Your task to perform on an android device: turn off javascript in the chrome app Image 0: 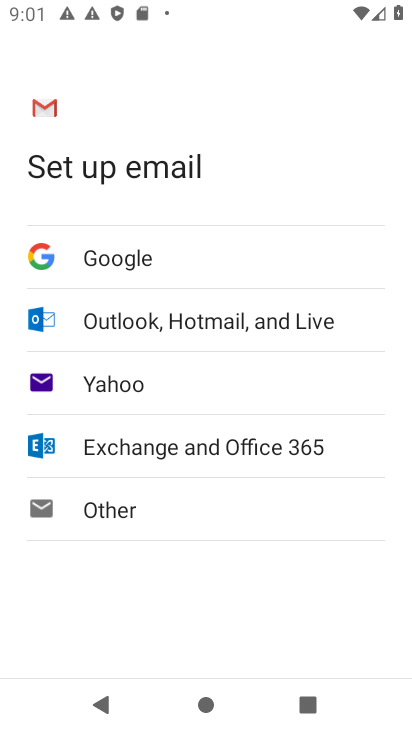
Step 0: press home button
Your task to perform on an android device: turn off javascript in the chrome app Image 1: 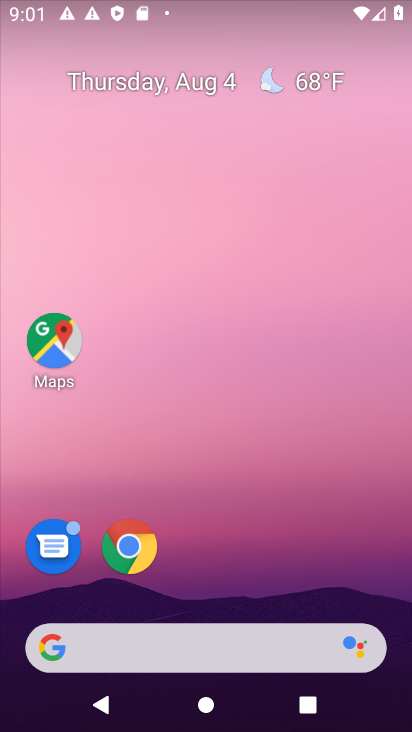
Step 1: drag from (271, 611) to (313, 139)
Your task to perform on an android device: turn off javascript in the chrome app Image 2: 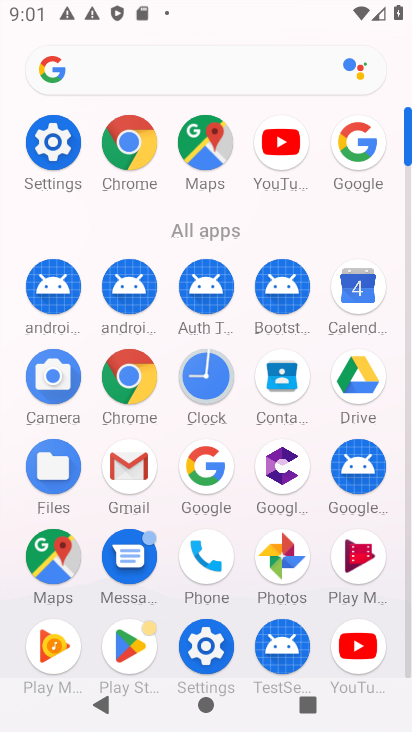
Step 2: click (130, 147)
Your task to perform on an android device: turn off javascript in the chrome app Image 3: 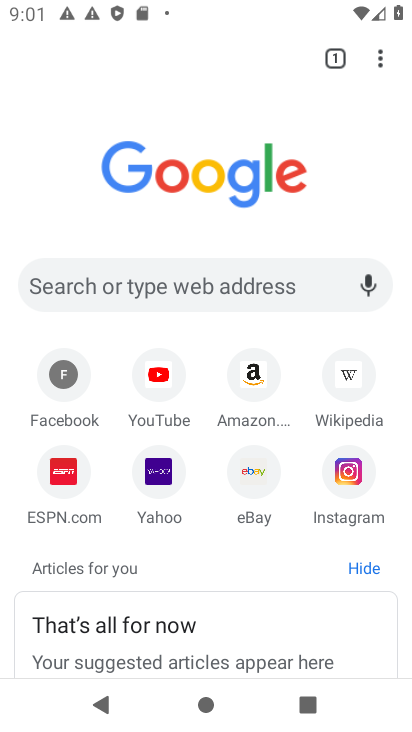
Step 3: drag from (380, 64) to (193, 494)
Your task to perform on an android device: turn off javascript in the chrome app Image 4: 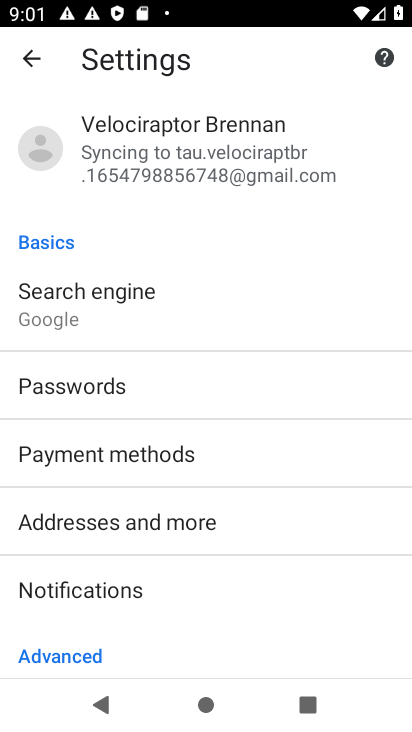
Step 4: drag from (239, 607) to (238, 221)
Your task to perform on an android device: turn off javascript in the chrome app Image 5: 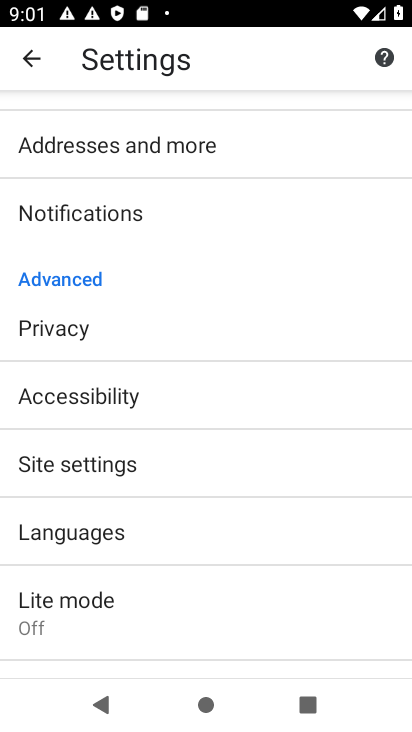
Step 5: click (68, 472)
Your task to perform on an android device: turn off javascript in the chrome app Image 6: 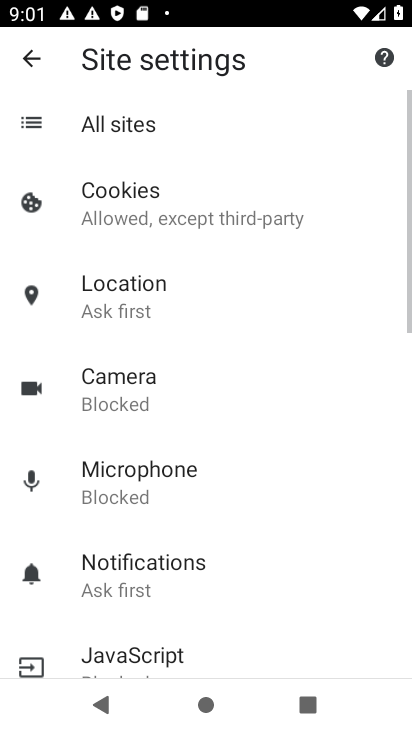
Step 6: drag from (345, 546) to (364, 315)
Your task to perform on an android device: turn off javascript in the chrome app Image 7: 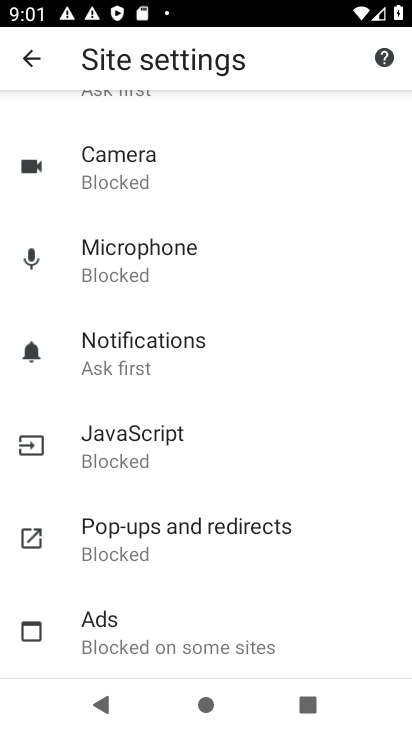
Step 7: click (134, 456)
Your task to perform on an android device: turn off javascript in the chrome app Image 8: 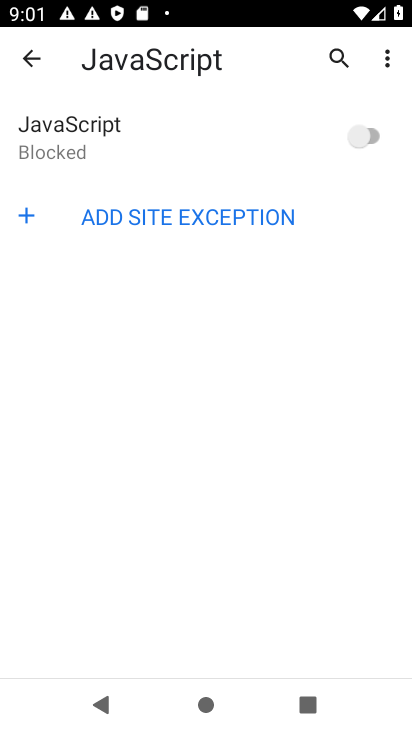
Step 8: task complete